Your task to perform on an android device: turn off priority inbox in the gmail app Image 0: 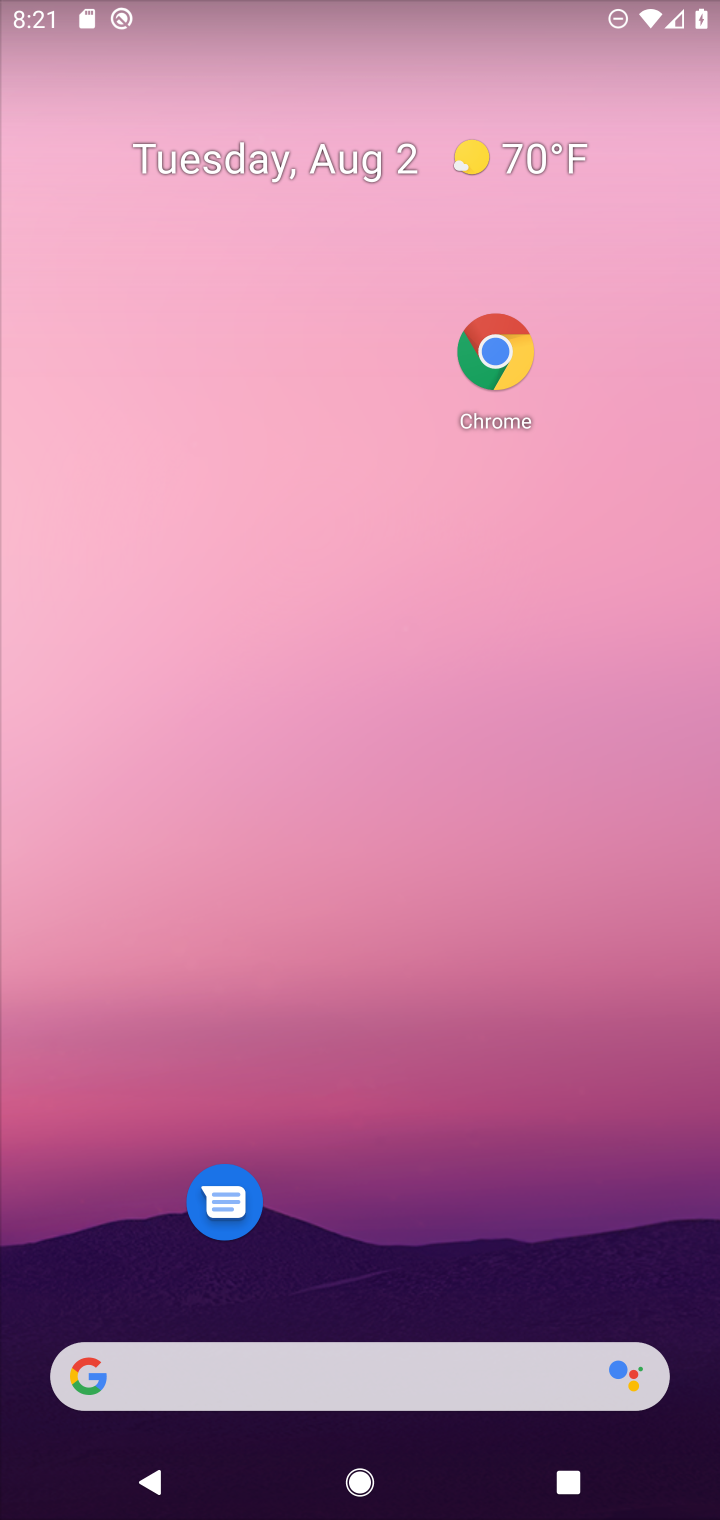
Step 0: drag from (436, 1044) to (393, 25)
Your task to perform on an android device: turn off priority inbox in the gmail app Image 1: 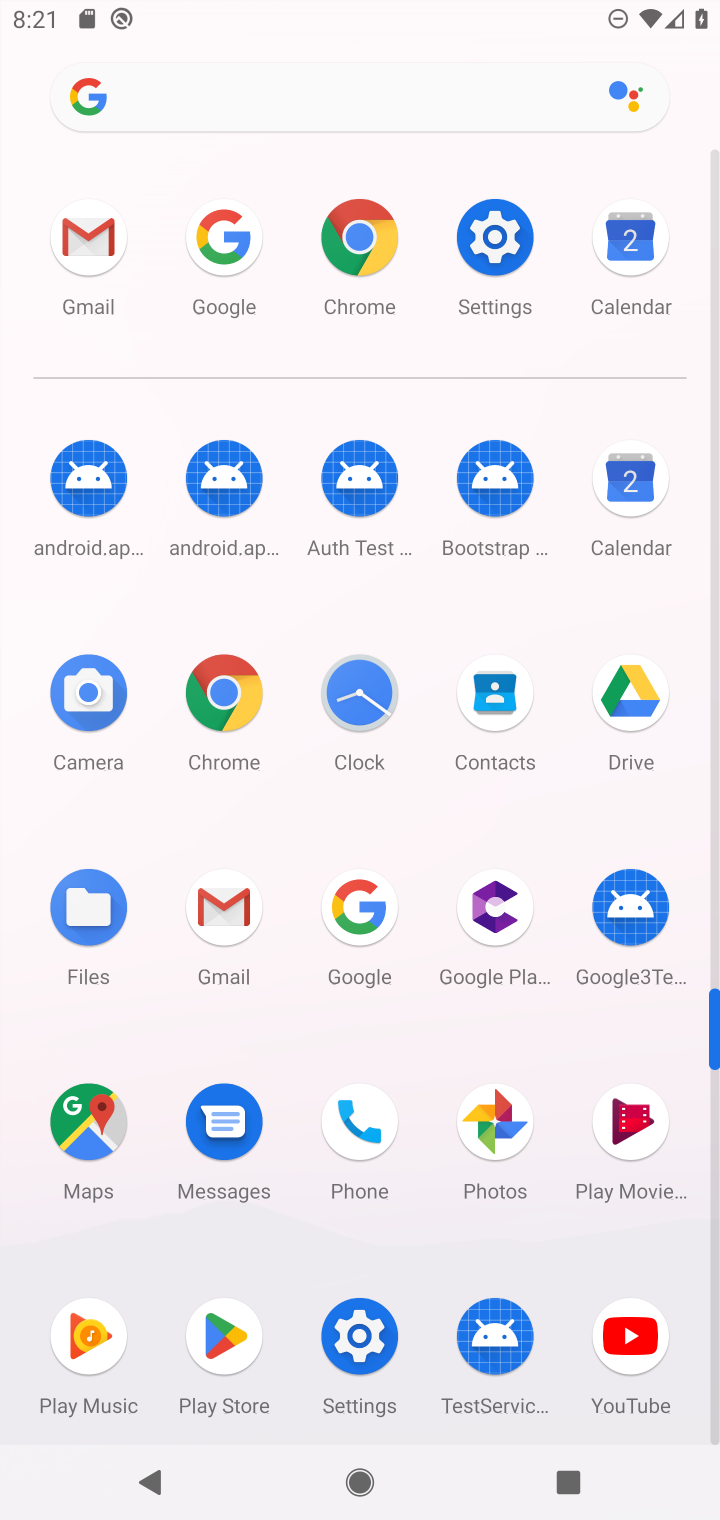
Step 1: click (84, 248)
Your task to perform on an android device: turn off priority inbox in the gmail app Image 2: 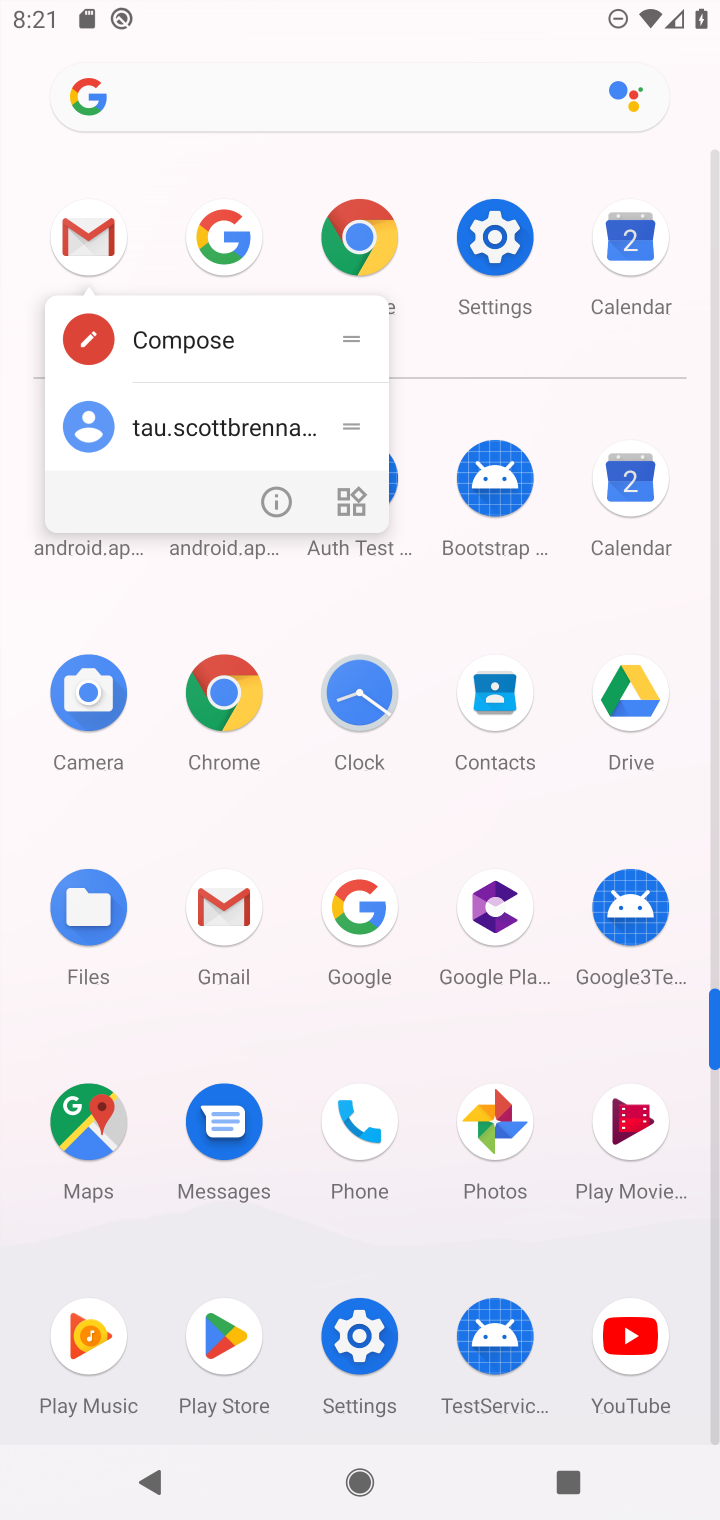
Step 2: click (84, 244)
Your task to perform on an android device: turn off priority inbox in the gmail app Image 3: 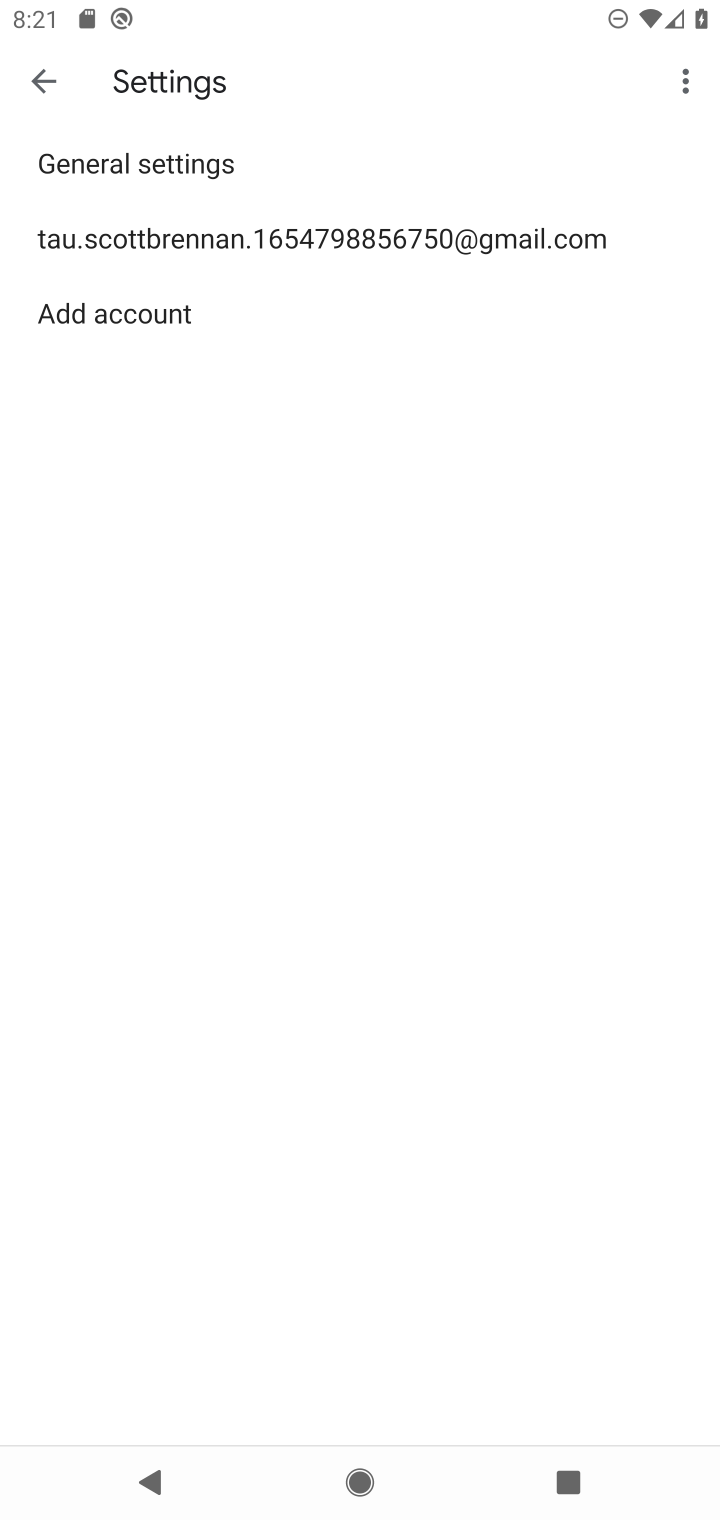
Step 3: click (84, 244)
Your task to perform on an android device: turn off priority inbox in the gmail app Image 4: 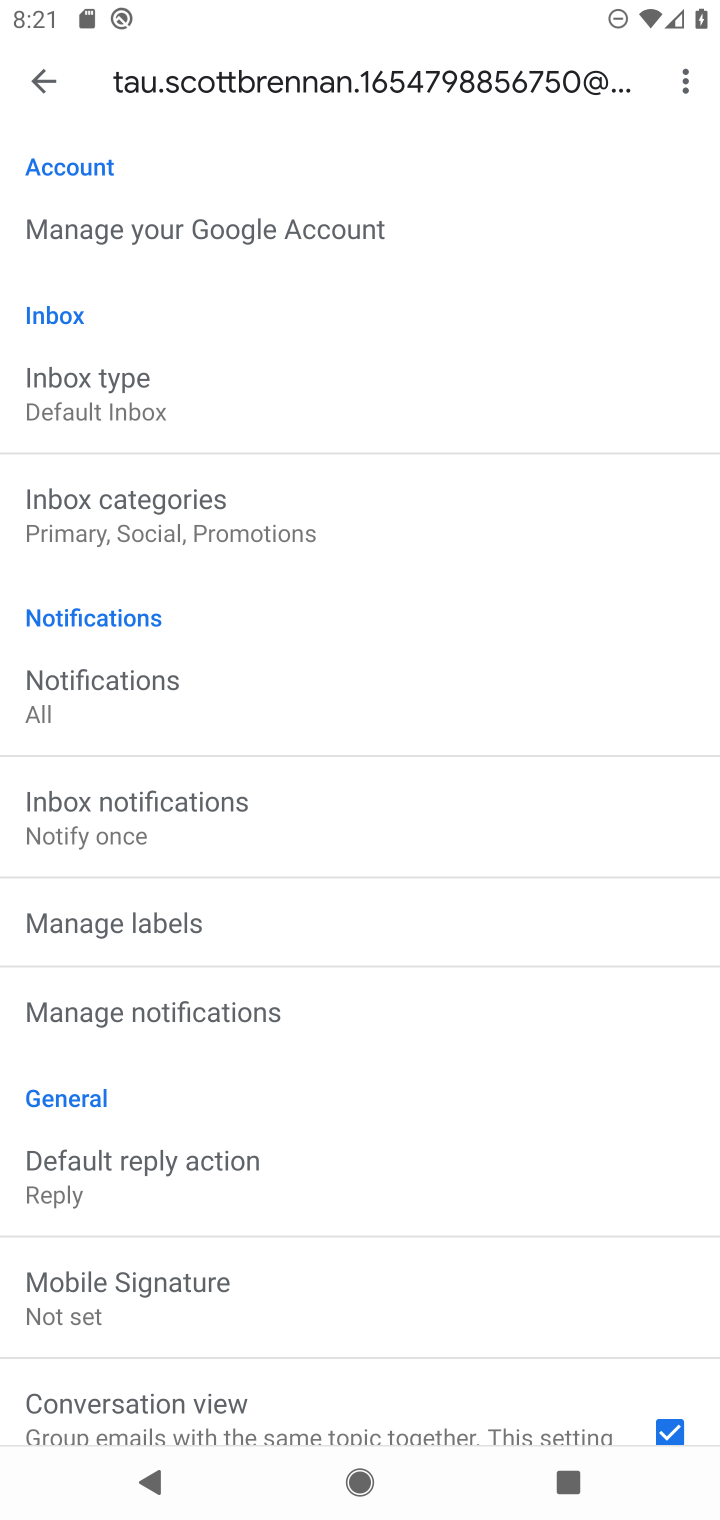
Step 4: click (114, 416)
Your task to perform on an android device: turn off priority inbox in the gmail app Image 5: 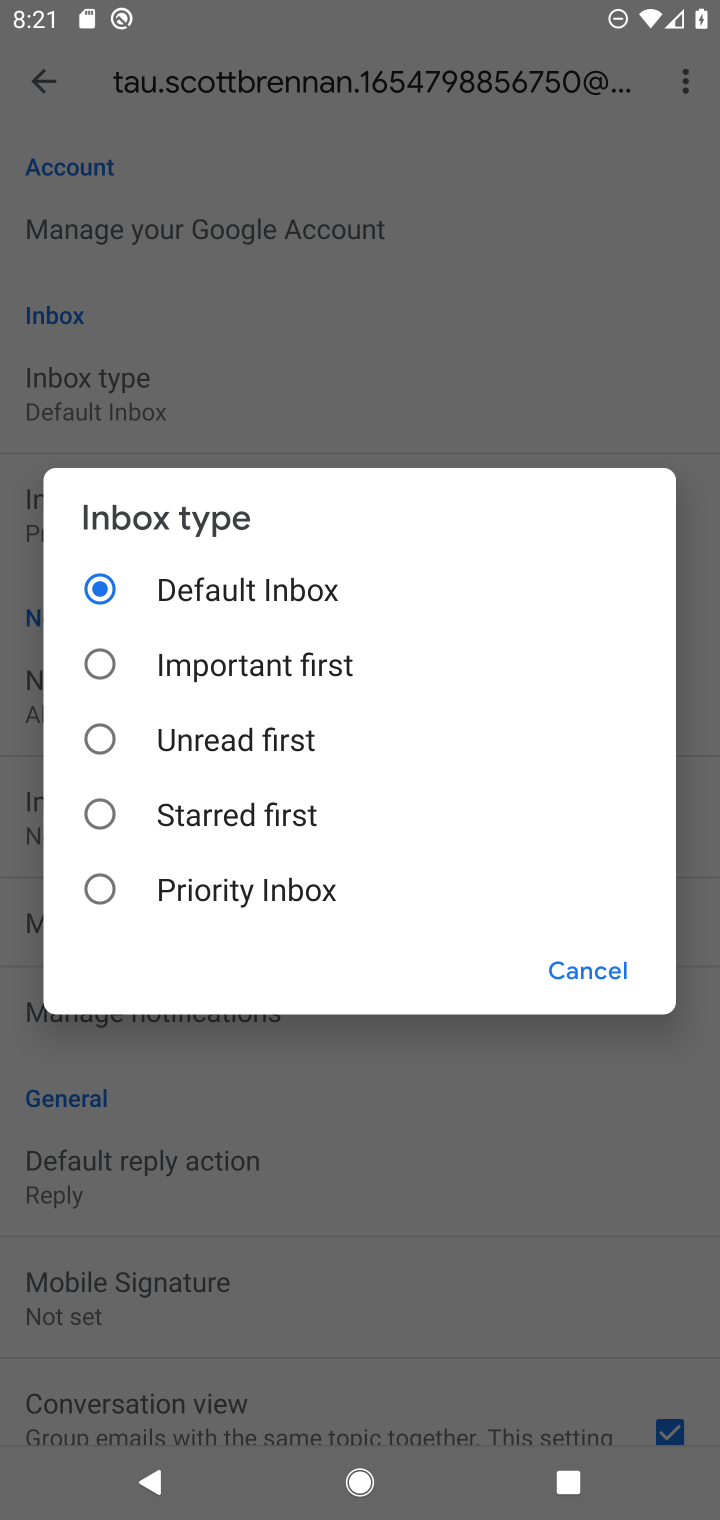
Step 5: task complete